Your task to perform on an android device: toggle javascript in the chrome app Image 0: 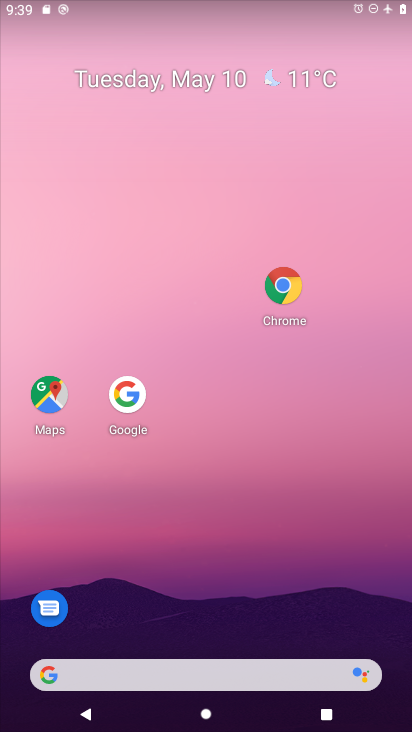
Step 0: drag from (199, 656) to (294, 153)
Your task to perform on an android device: toggle javascript in the chrome app Image 1: 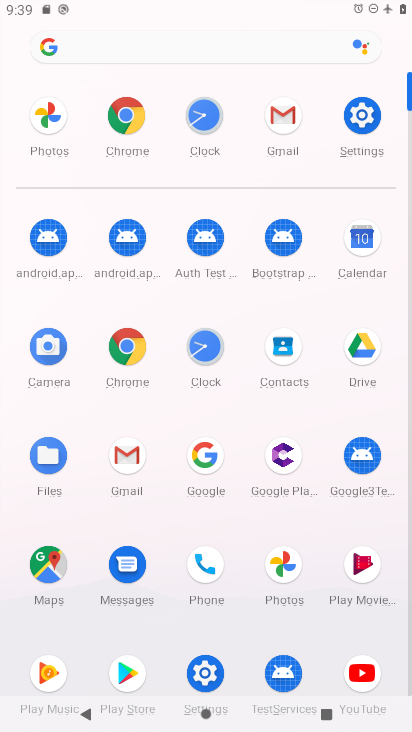
Step 1: click (126, 116)
Your task to perform on an android device: toggle javascript in the chrome app Image 2: 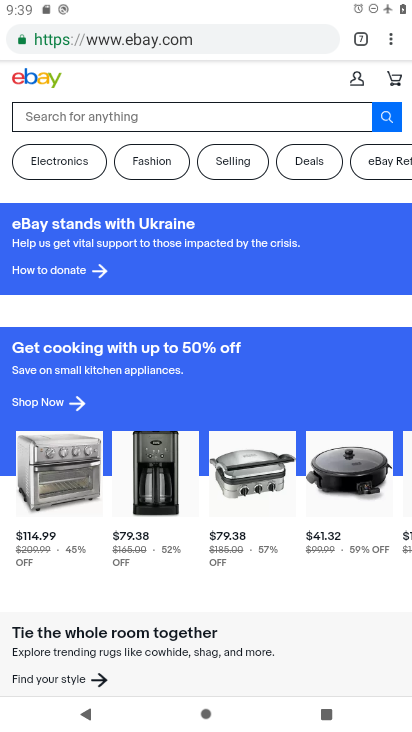
Step 2: drag from (388, 41) to (282, 440)
Your task to perform on an android device: toggle javascript in the chrome app Image 3: 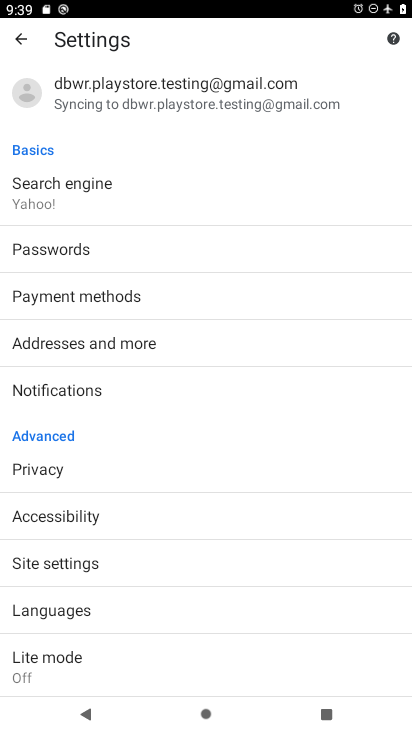
Step 3: click (72, 561)
Your task to perform on an android device: toggle javascript in the chrome app Image 4: 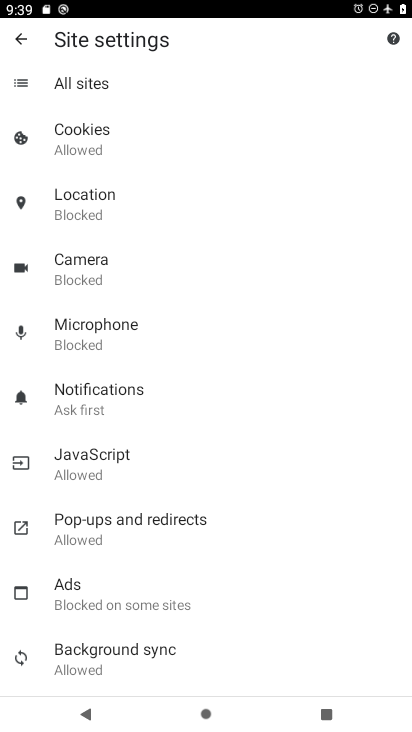
Step 4: click (87, 452)
Your task to perform on an android device: toggle javascript in the chrome app Image 5: 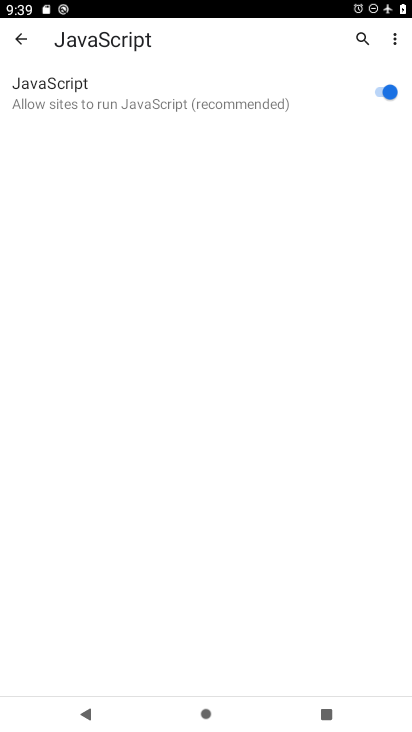
Step 5: click (379, 92)
Your task to perform on an android device: toggle javascript in the chrome app Image 6: 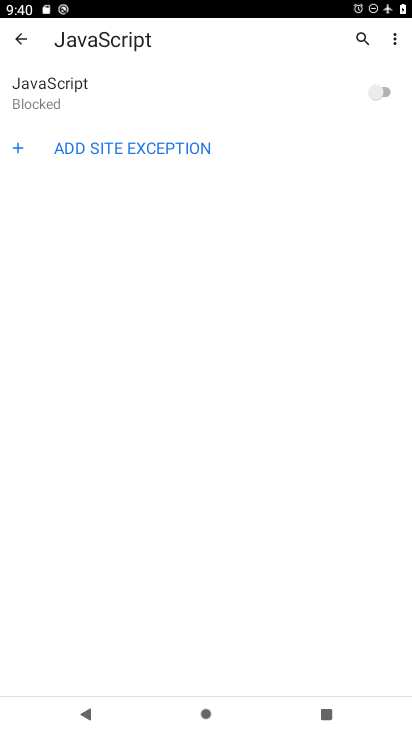
Step 6: task complete